Your task to perform on an android device: turn on notifications settings in the gmail app Image 0: 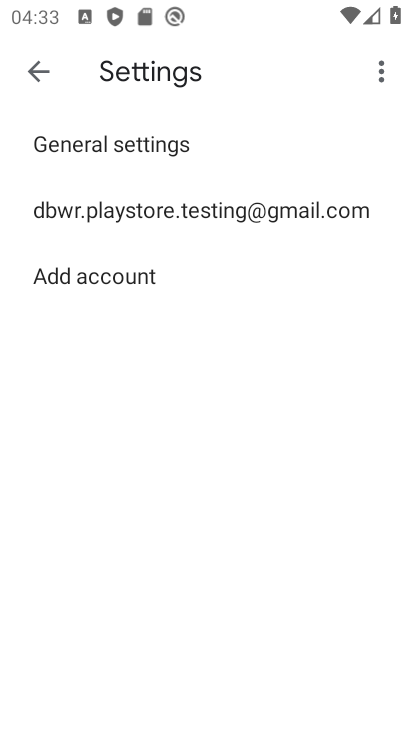
Step 0: press home button
Your task to perform on an android device: turn on notifications settings in the gmail app Image 1: 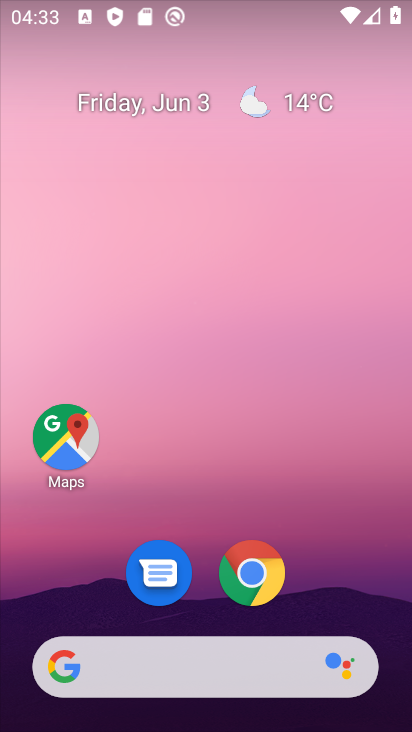
Step 1: drag from (293, 641) to (290, 59)
Your task to perform on an android device: turn on notifications settings in the gmail app Image 2: 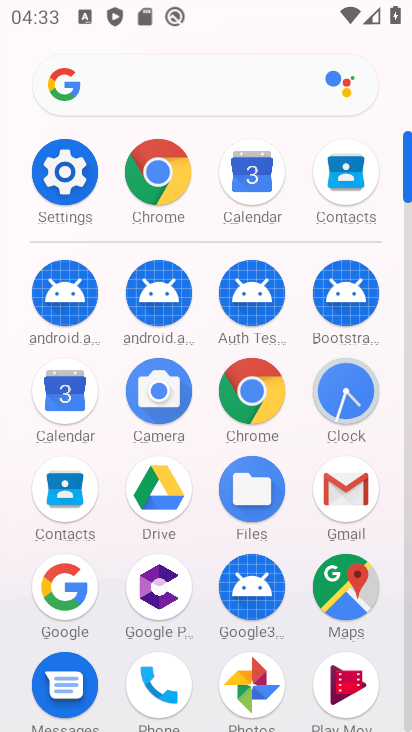
Step 2: click (367, 479)
Your task to perform on an android device: turn on notifications settings in the gmail app Image 3: 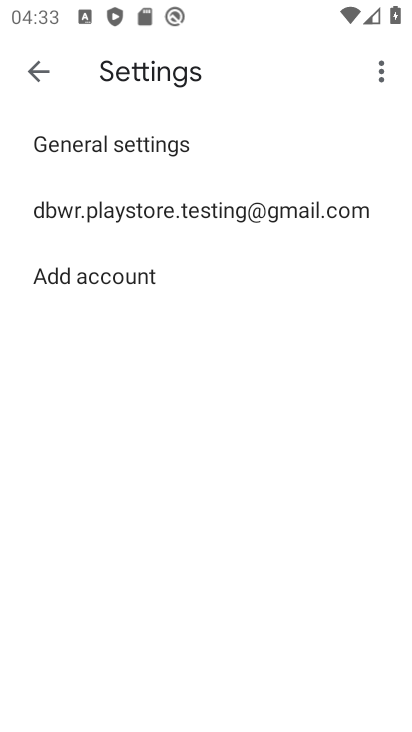
Step 3: click (275, 220)
Your task to perform on an android device: turn on notifications settings in the gmail app Image 4: 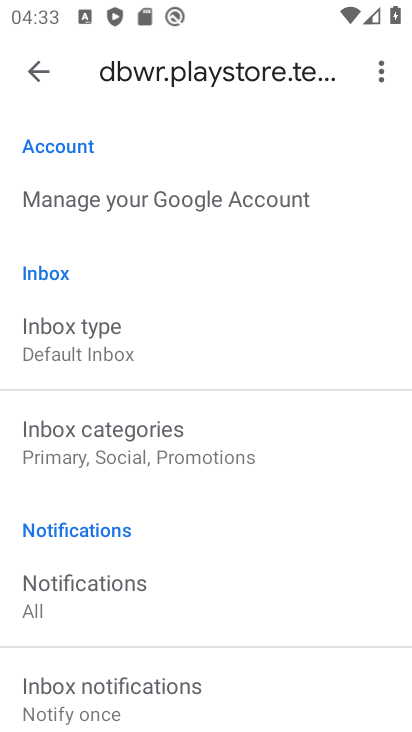
Step 4: drag from (265, 614) to (318, 116)
Your task to perform on an android device: turn on notifications settings in the gmail app Image 5: 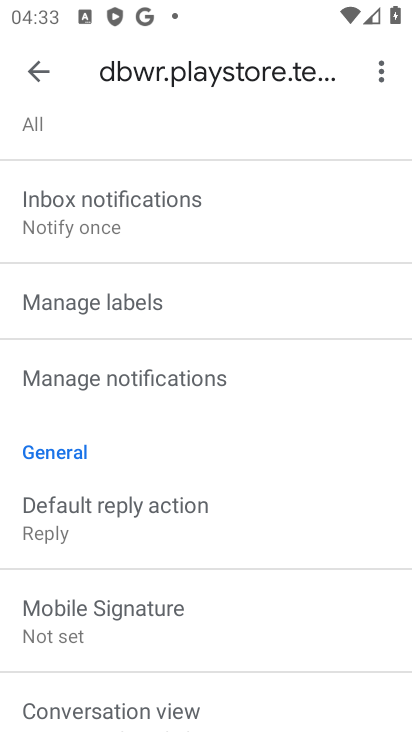
Step 5: click (243, 360)
Your task to perform on an android device: turn on notifications settings in the gmail app Image 6: 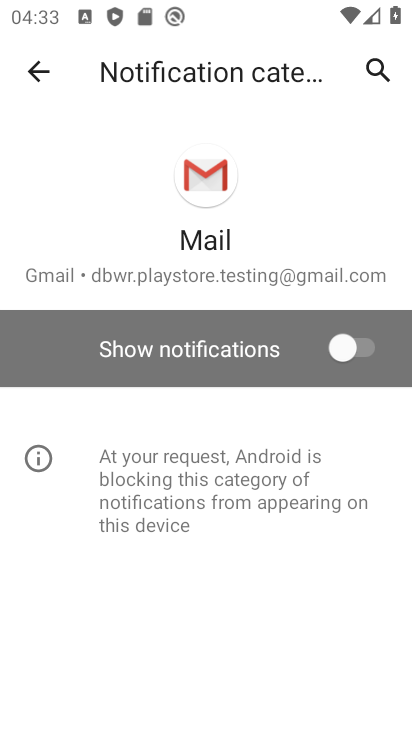
Step 6: click (353, 342)
Your task to perform on an android device: turn on notifications settings in the gmail app Image 7: 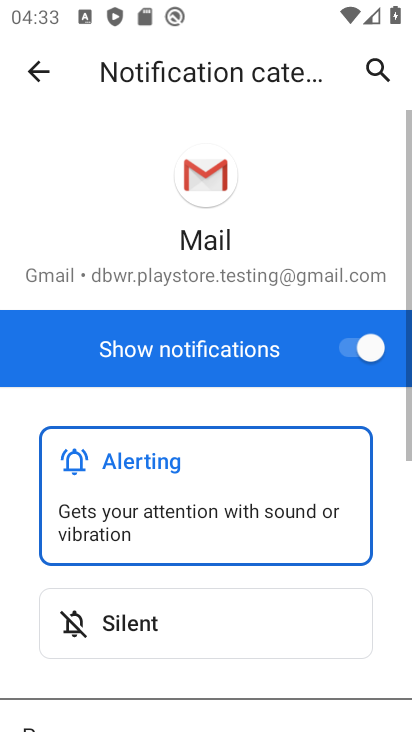
Step 7: task complete